Your task to perform on an android device: Open sound settings Image 0: 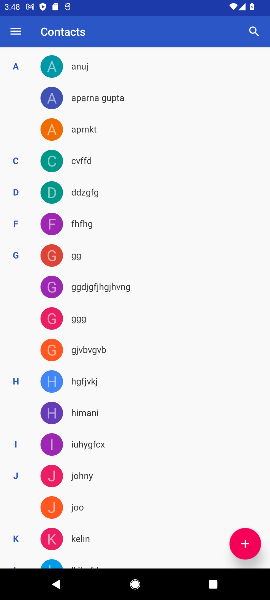
Step 0: press home button
Your task to perform on an android device: Open sound settings Image 1: 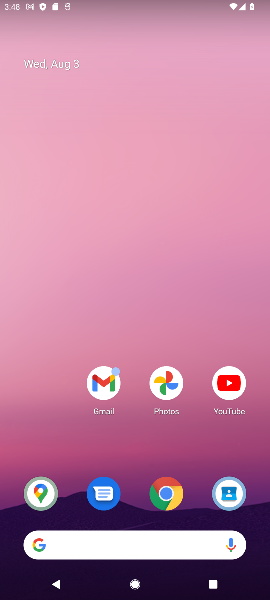
Step 1: drag from (31, 443) to (31, 143)
Your task to perform on an android device: Open sound settings Image 2: 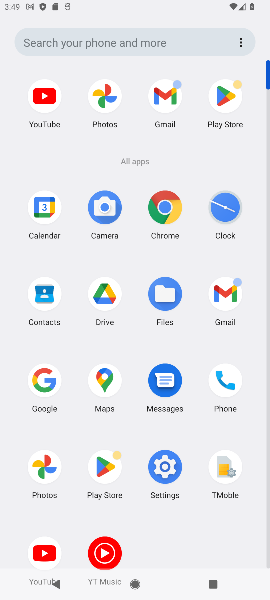
Step 2: click (168, 468)
Your task to perform on an android device: Open sound settings Image 3: 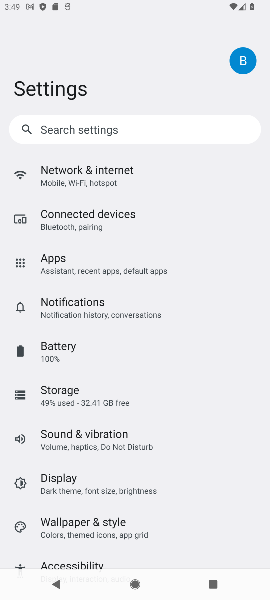
Step 3: drag from (225, 481) to (223, 419)
Your task to perform on an android device: Open sound settings Image 4: 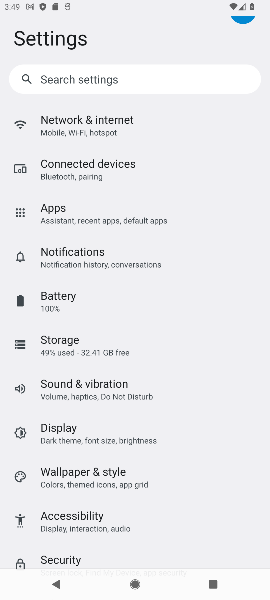
Step 4: drag from (205, 506) to (204, 425)
Your task to perform on an android device: Open sound settings Image 5: 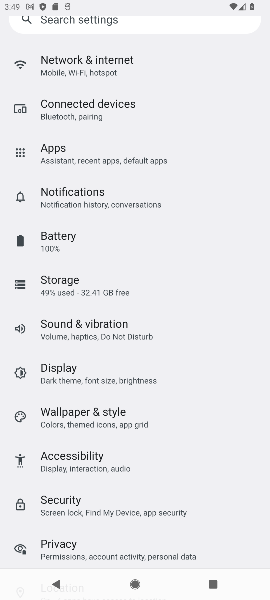
Step 5: drag from (223, 538) to (219, 442)
Your task to perform on an android device: Open sound settings Image 6: 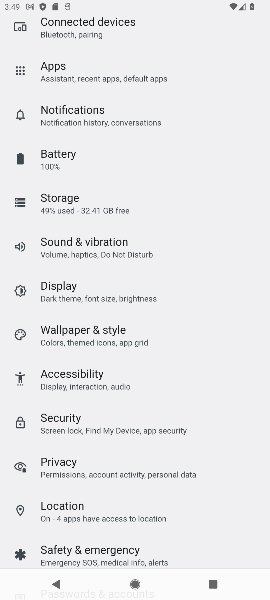
Step 6: drag from (220, 542) to (213, 433)
Your task to perform on an android device: Open sound settings Image 7: 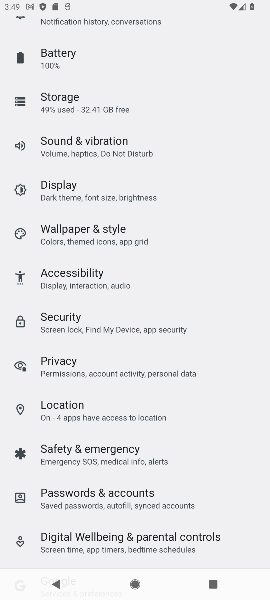
Step 7: drag from (231, 540) to (236, 445)
Your task to perform on an android device: Open sound settings Image 8: 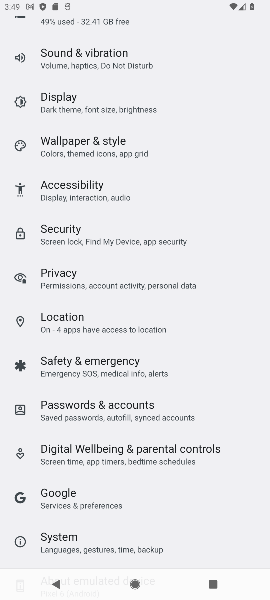
Step 8: drag from (234, 361) to (234, 444)
Your task to perform on an android device: Open sound settings Image 9: 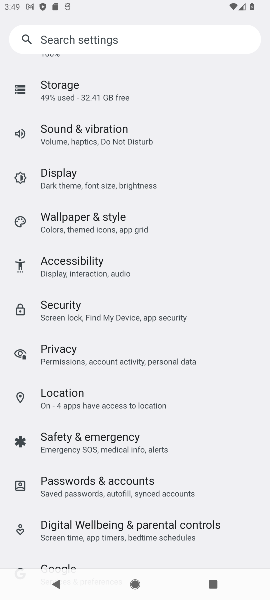
Step 9: drag from (226, 337) to (228, 428)
Your task to perform on an android device: Open sound settings Image 10: 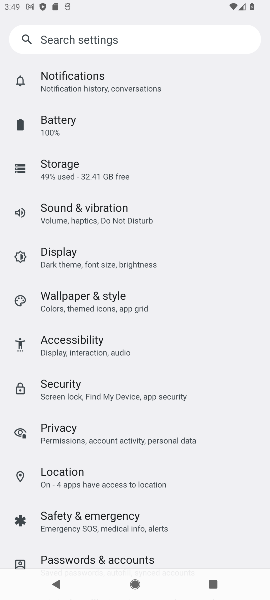
Step 10: drag from (228, 316) to (228, 407)
Your task to perform on an android device: Open sound settings Image 11: 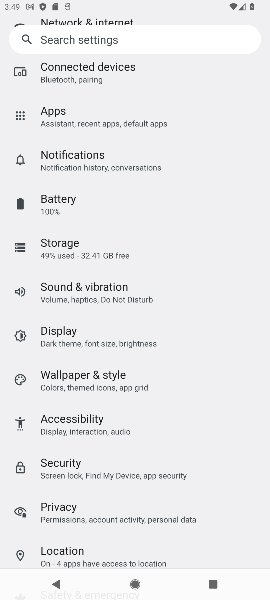
Step 11: drag from (214, 308) to (212, 410)
Your task to perform on an android device: Open sound settings Image 12: 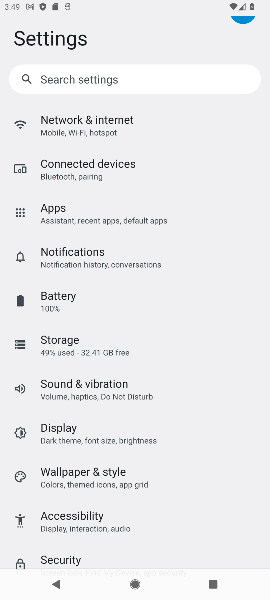
Step 12: drag from (197, 292) to (194, 406)
Your task to perform on an android device: Open sound settings Image 13: 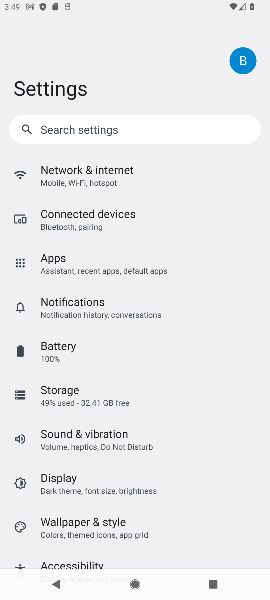
Step 13: click (167, 449)
Your task to perform on an android device: Open sound settings Image 14: 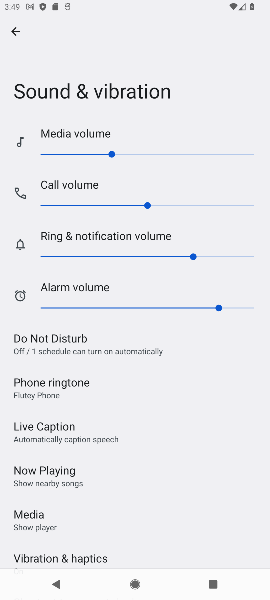
Step 14: task complete